Your task to perform on an android device: Check the news Image 0: 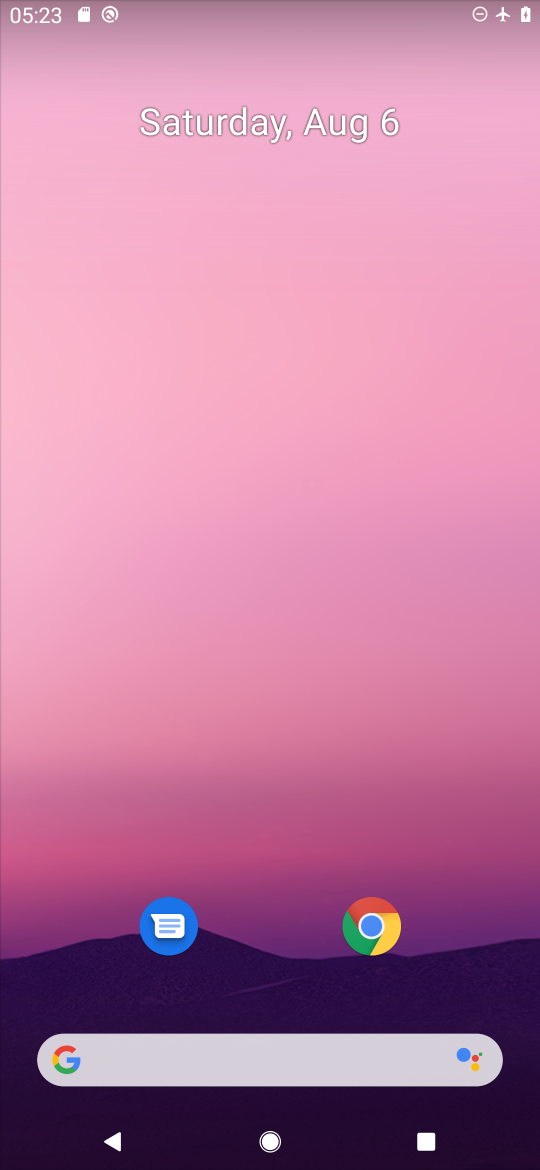
Step 0: drag from (283, 918) to (290, 224)
Your task to perform on an android device: Check the news Image 1: 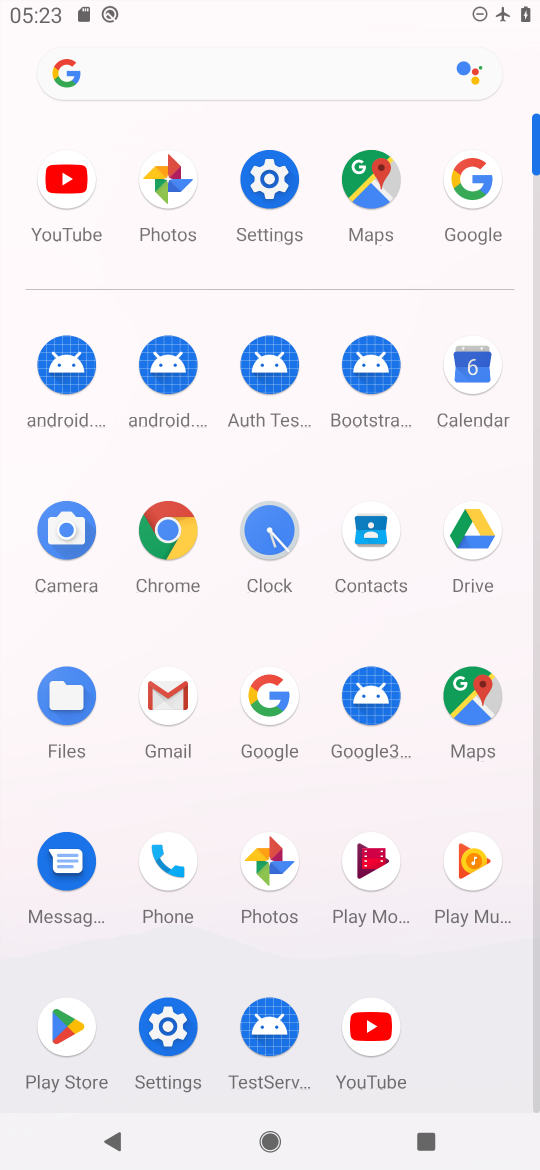
Step 1: click (287, 700)
Your task to perform on an android device: Check the news Image 2: 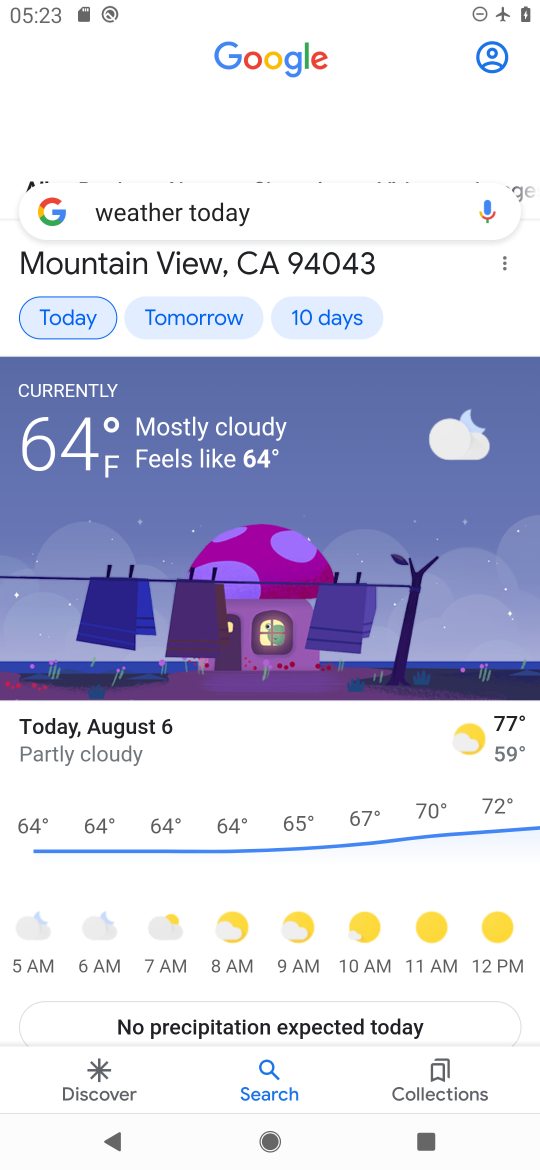
Step 2: click (298, 217)
Your task to perform on an android device: Check the news Image 3: 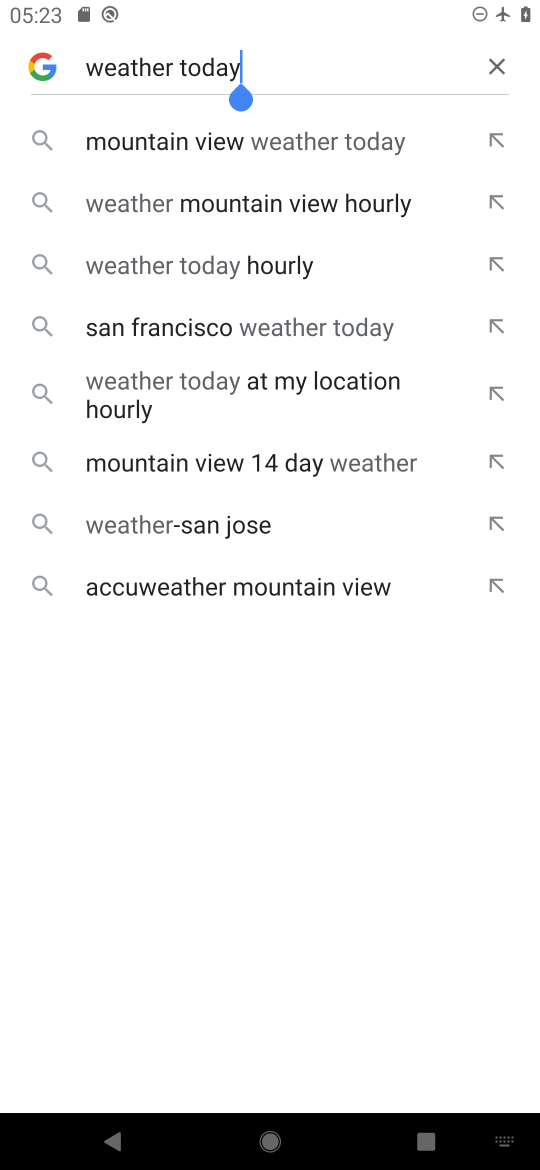
Step 3: click (484, 68)
Your task to perform on an android device: Check the news Image 4: 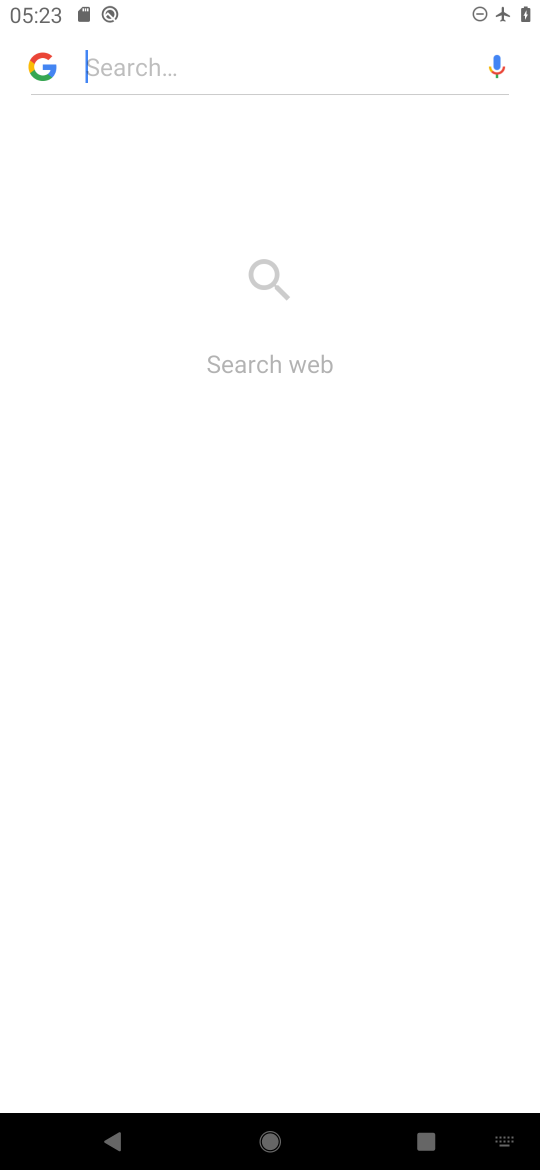
Step 4: type "news"
Your task to perform on an android device: Check the news Image 5: 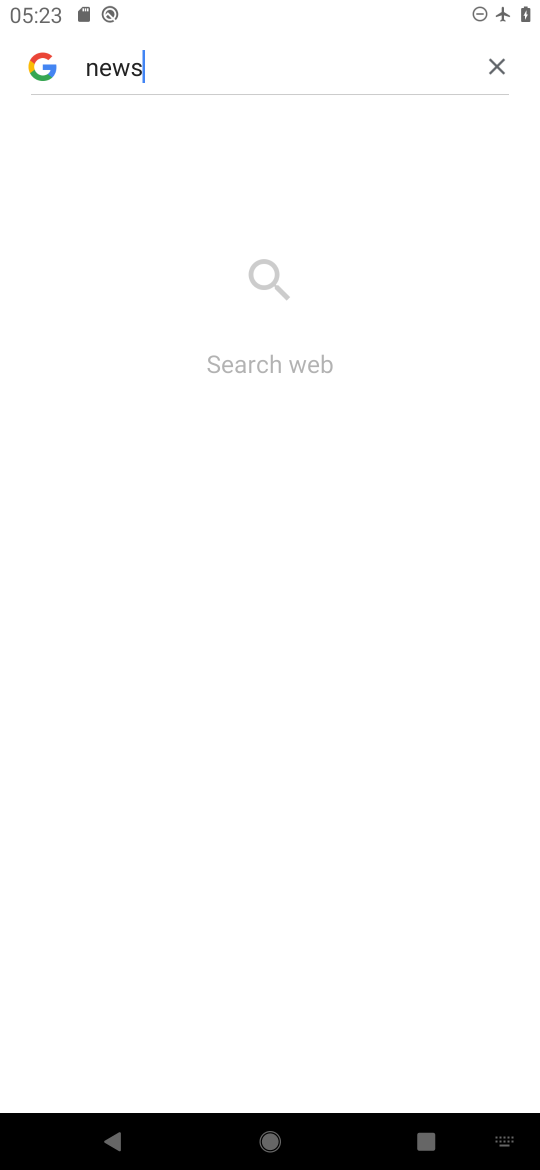
Step 5: type ""
Your task to perform on an android device: Check the news Image 6: 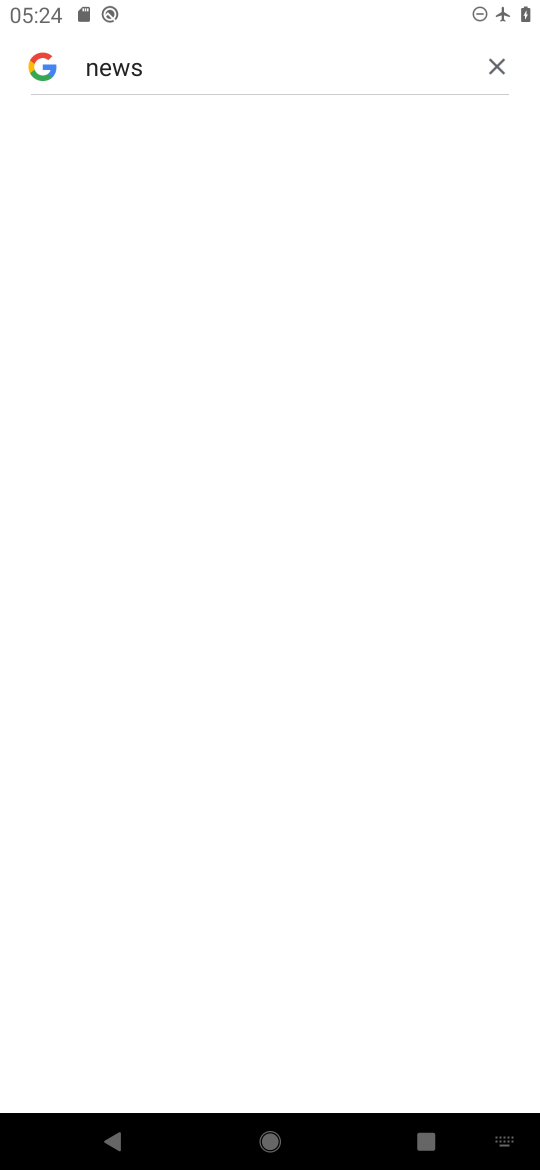
Step 6: task complete